Your task to perform on an android device: Search for a dining table on crateandbarrel.com Image 0: 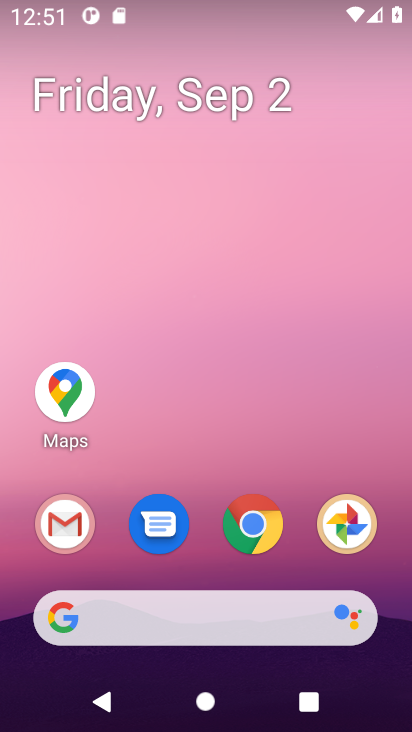
Step 0: press home button
Your task to perform on an android device: Search for a dining table on crateandbarrel.com Image 1: 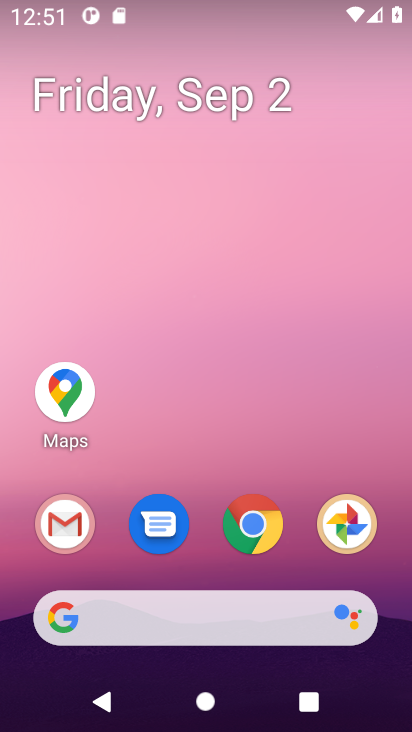
Step 1: click (286, 609)
Your task to perform on an android device: Search for a dining table on crateandbarrel.com Image 2: 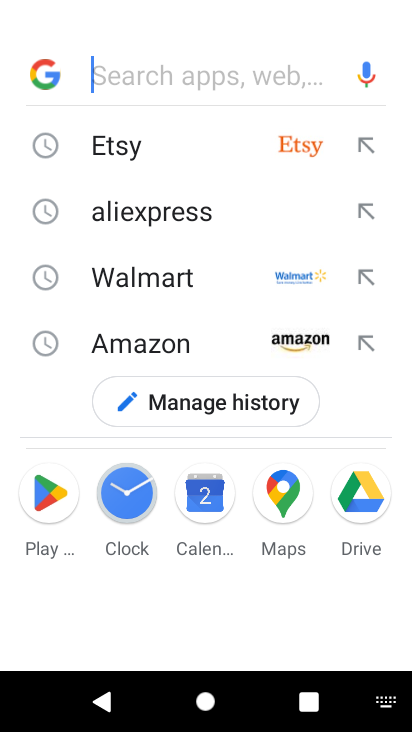
Step 2: press enter
Your task to perform on an android device: Search for a dining table on crateandbarrel.com Image 3: 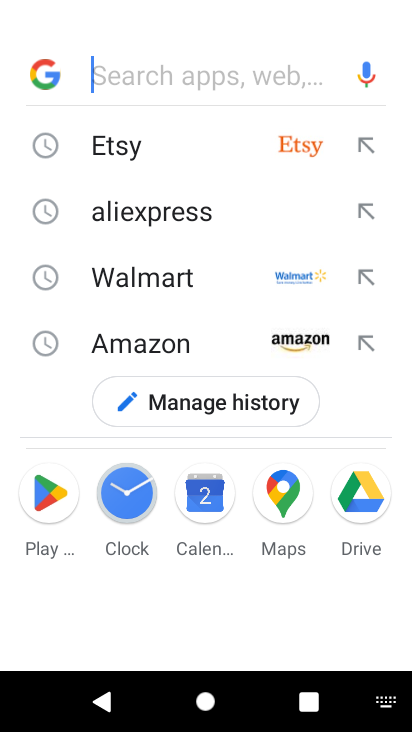
Step 3: type "crateandbarrel.com"
Your task to perform on an android device: Search for a dining table on crateandbarrel.com Image 4: 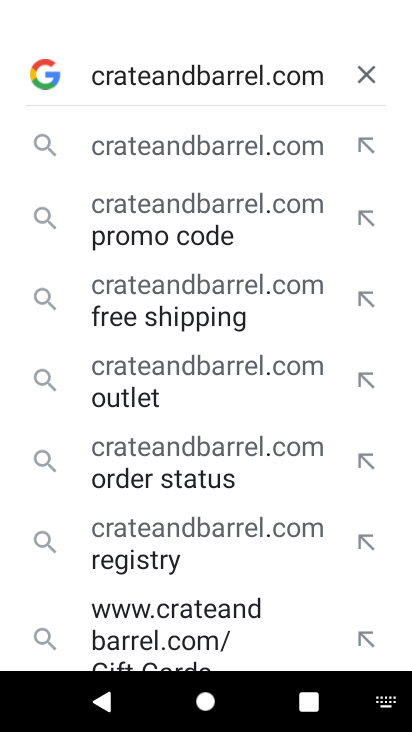
Step 4: click (239, 142)
Your task to perform on an android device: Search for a dining table on crateandbarrel.com Image 5: 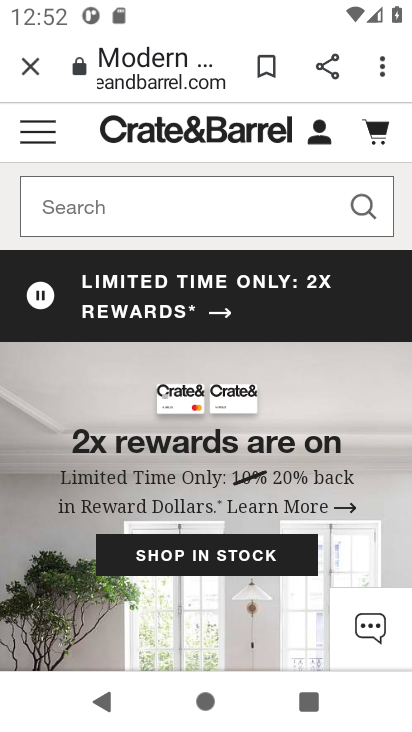
Step 5: click (181, 199)
Your task to perform on an android device: Search for a dining table on crateandbarrel.com Image 6: 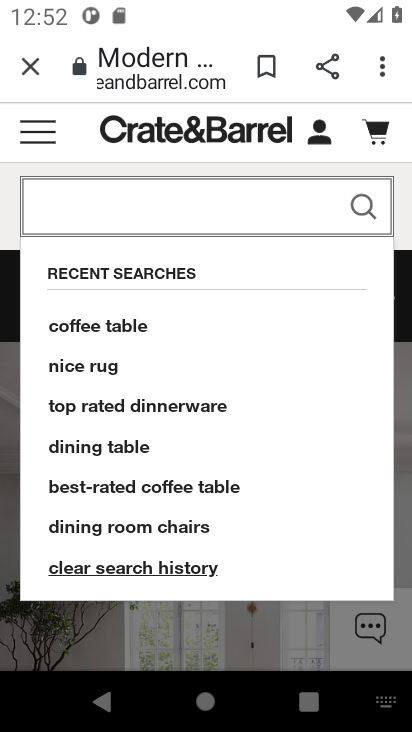
Step 6: click (126, 447)
Your task to perform on an android device: Search for a dining table on crateandbarrel.com Image 7: 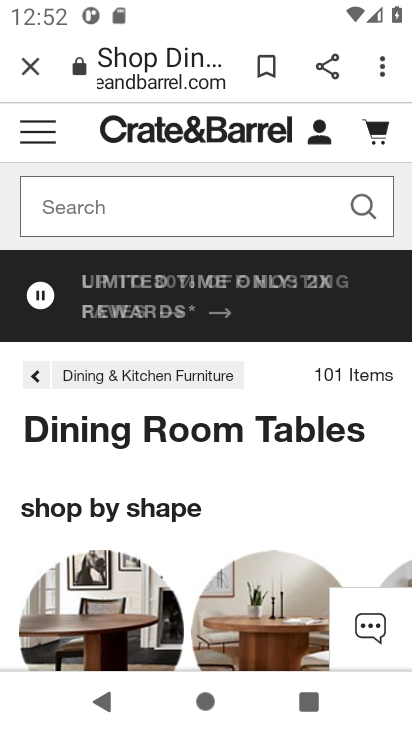
Step 7: task complete